Your task to perform on an android device: Open calendar and show me the fourth week of next month Image 0: 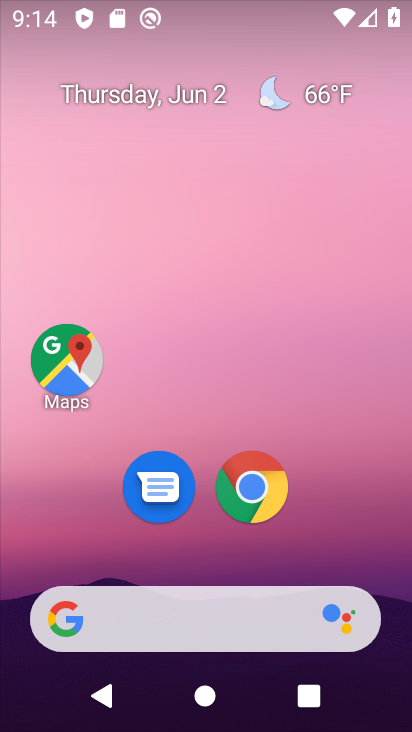
Step 0: drag from (236, 717) to (160, 104)
Your task to perform on an android device: Open calendar and show me the fourth week of next month Image 1: 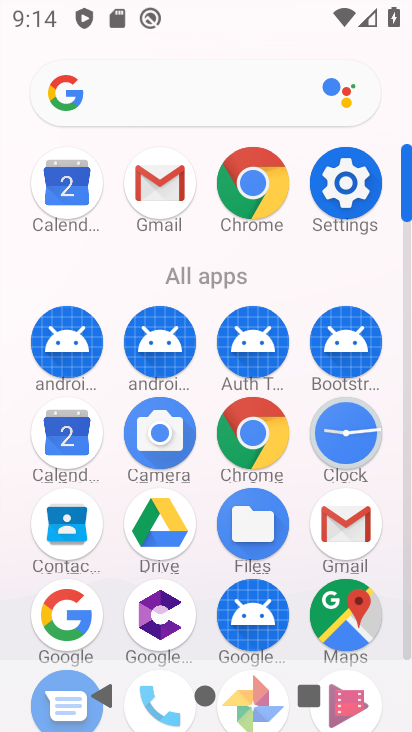
Step 1: click (64, 441)
Your task to perform on an android device: Open calendar and show me the fourth week of next month Image 2: 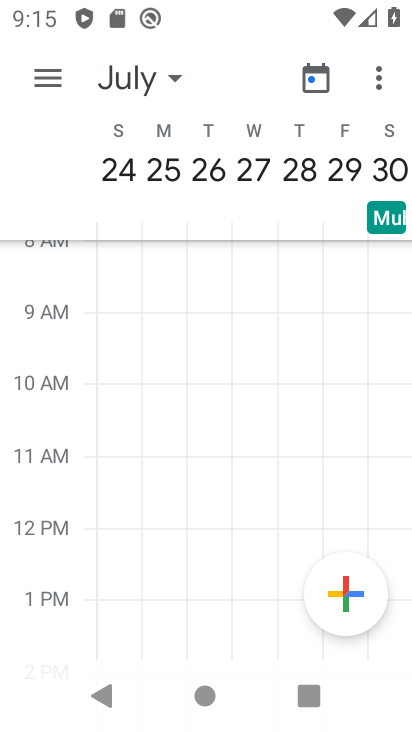
Step 2: task complete